Your task to perform on an android device: Go to privacy settings Image 0: 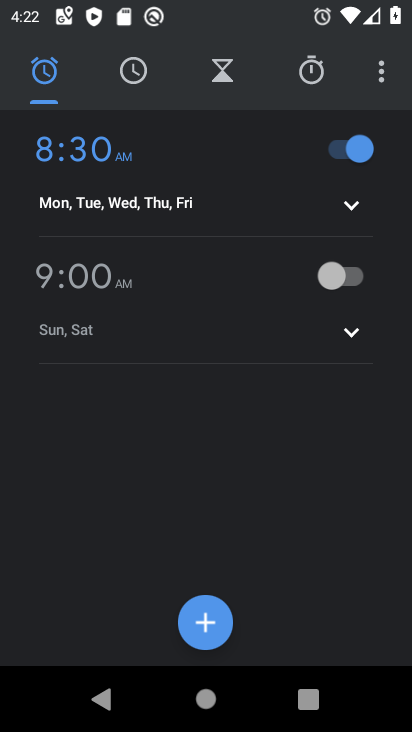
Step 0: press home button
Your task to perform on an android device: Go to privacy settings Image 1: 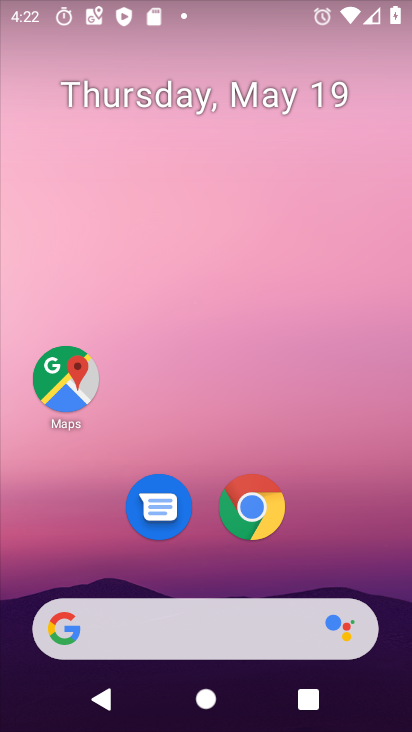
Step 1: drag from (382, 481) to (380, 207)
Your task to perform on an android device: Go to privacy settings Image 2: 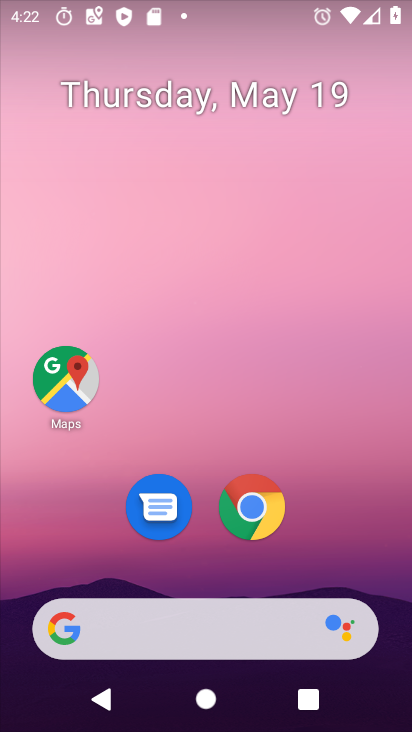
Step 2: drag from (392, 685) to (349, 268)
Your task to perform on an android device: Go to privacy settings Image 3: 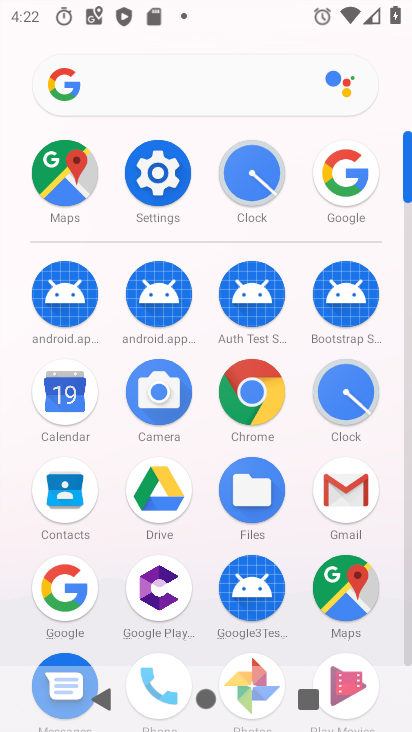
Step 3: click (150, 188)
Your task to perform on an android device: Go to privacy settings Image 4: 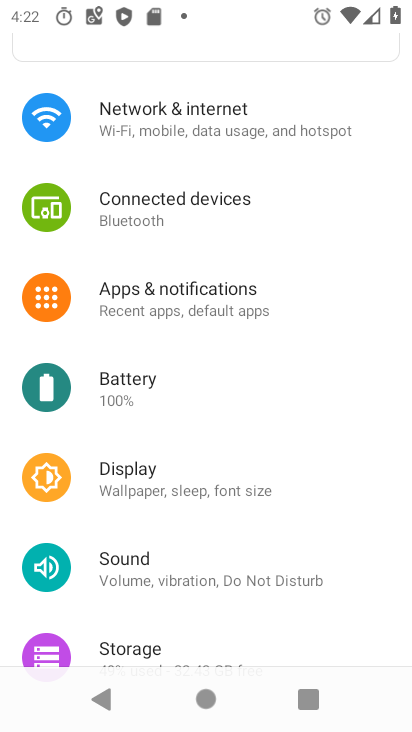
Step 4: press home button
Your task to perform on an android device: Go to privacy settings Image 5: 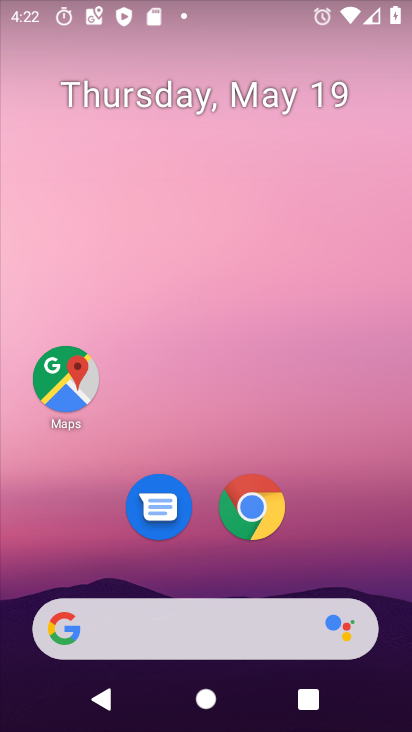
Step 5: click (235, 510)
Your task to perform on an android device: Go to privacy settings Image 6: 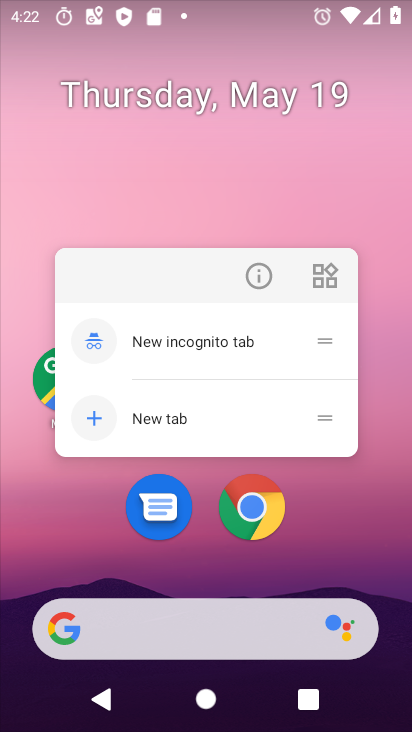
Step 6: click (254, 500)
Your task to perform on an android device: Go to privacy settings Image 7: 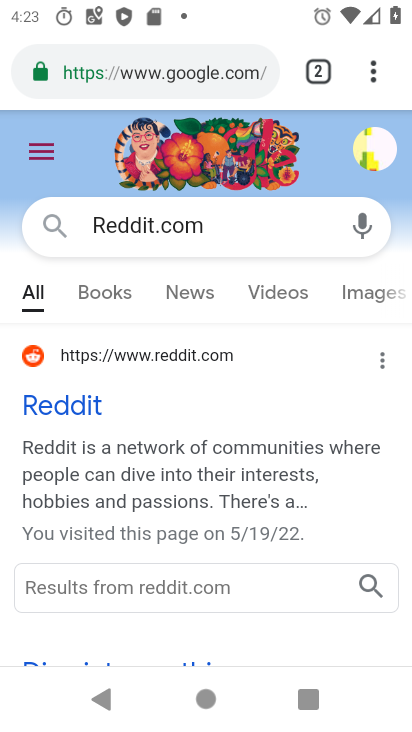
Step 7: click (371, 65)
Your task to perform on an android device: Go to privacy settings Image 8: 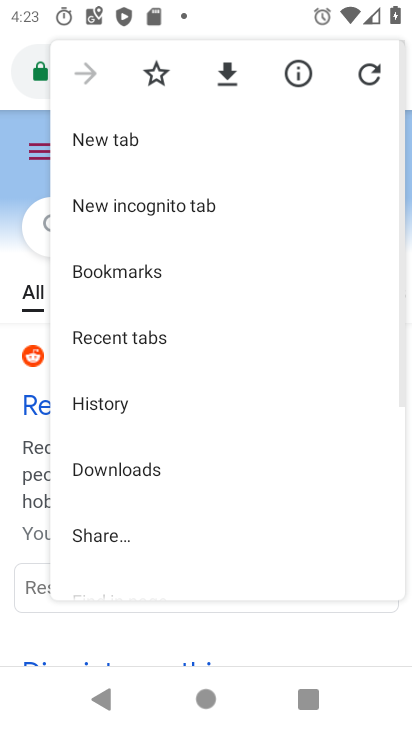
Step 8: drag from (246, 546) to (249, 270)
Your task to perform on an android device: Go to privacy settings Image 9: 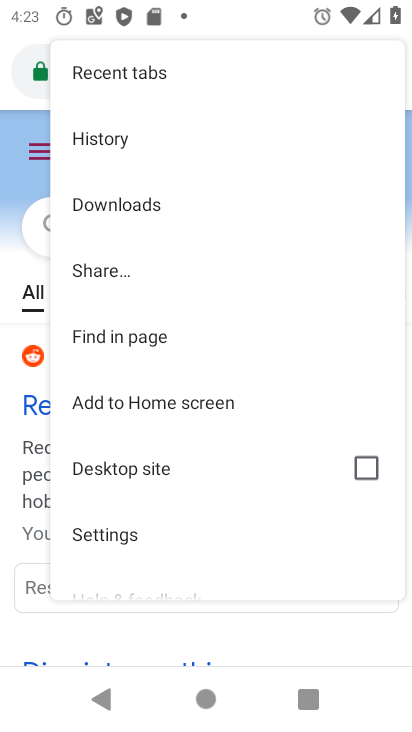
Step 9: click (102, 533)
Your task to perform on an android device: Go to privacy settings Image 10: 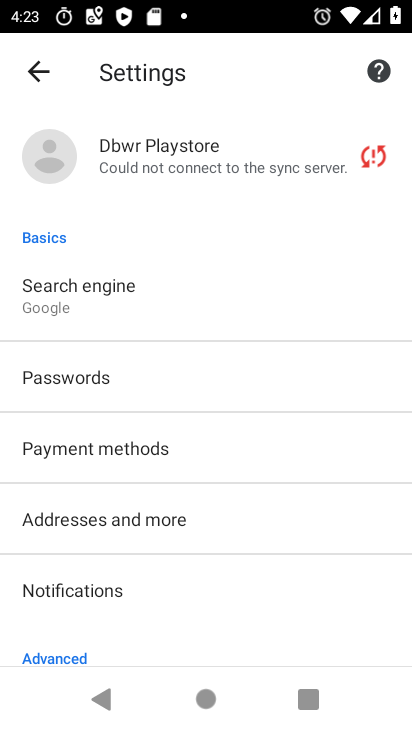
Step 10: drag from (264, 607) to (232, 213)
Your task to perform on an android device: Go to privacy settings Image 11: 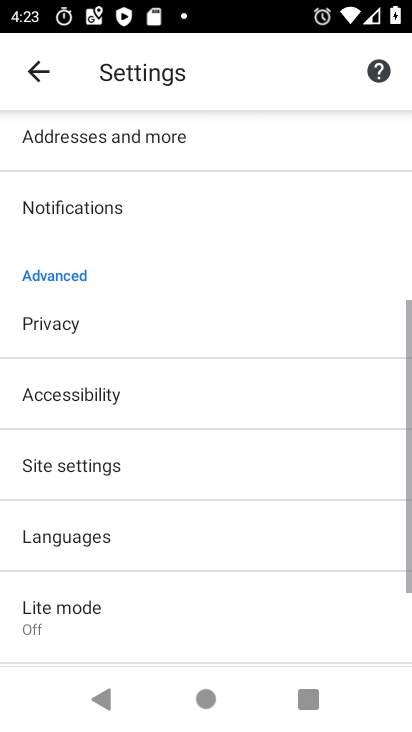
Step 11: drag from (217, 626) to (215, 433)
Your task to perform on an android device: Go to privacy settings Image 12: 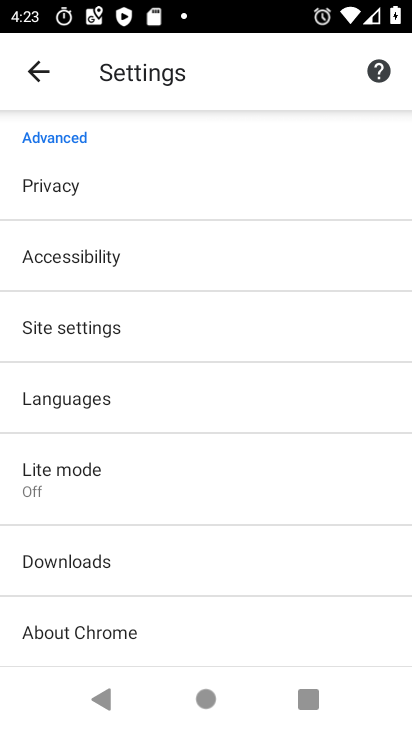
Step 12: drag from (214, 628) to (247, 405)
Your task to perform on an android device: Go to privacy settings Image 13: 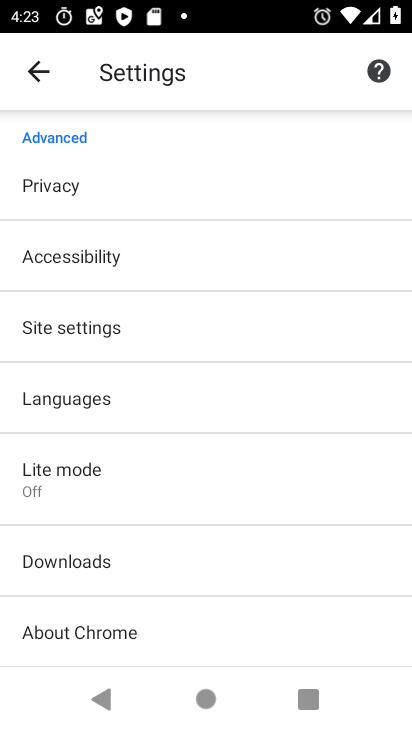
Step 13: click (65, 180)
Your task to perform on an android device: Go to privacy settings Image 14: 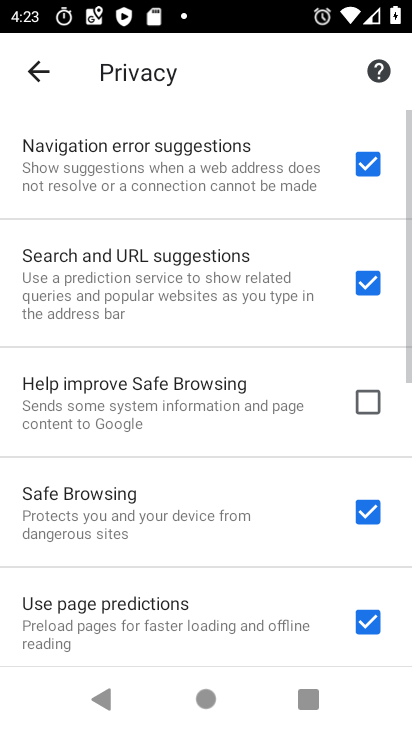
Step 14: task complete